Your task to perform on an android device: Open Google Maps and go to "Timeline" Image 0: 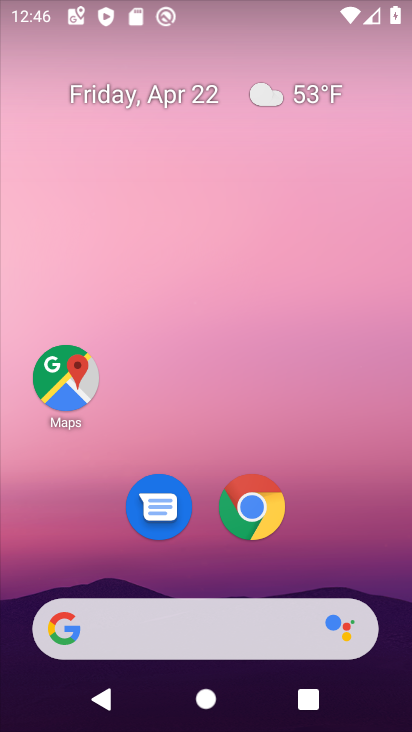
Step 0: click (65, 377)
Your task to perform on an android device: Open Google Maps and go to "Timeline" Image 1: 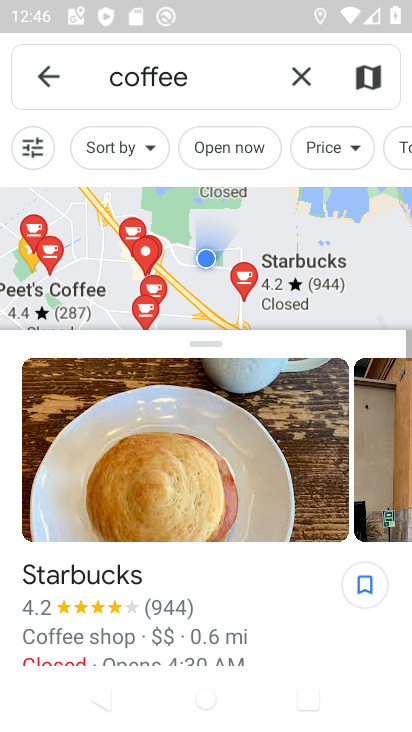
Step 1: click (44, 78)
Your task to perform on an android device: Open Google Maps and go to "Timeline" Image 2: 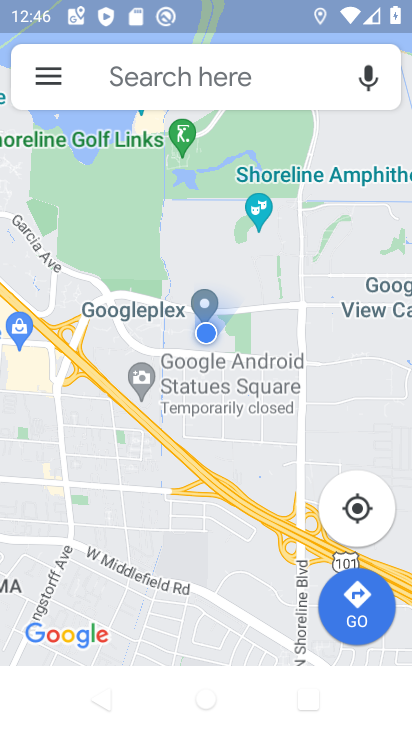
Step 2: click (50, 79)
Your task to perform on an android device: Open Google Maps and go to "Timeline" Image 3: 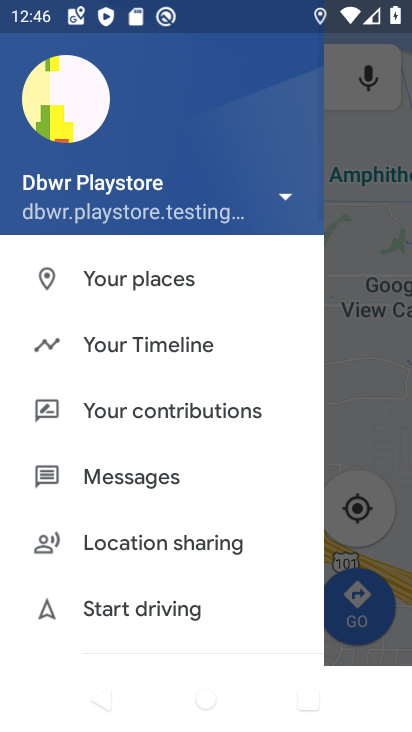
Step 3: click (108, 348)
Your task to perform on an android device: Open Google Maps and go to "Timeline" Image 4: 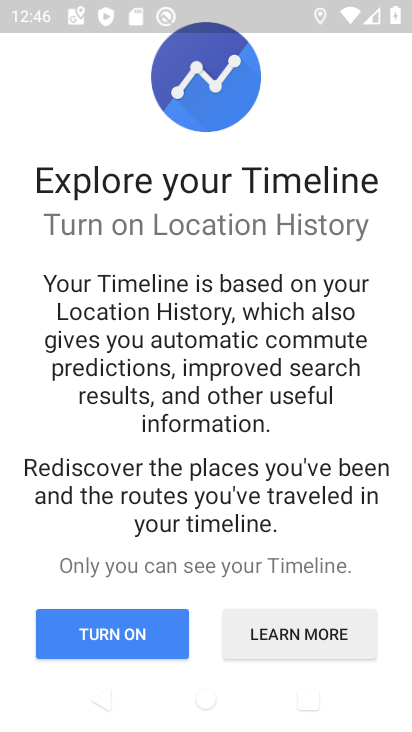
Step 4: task complete